Your task to perform on an android device: Go to display settings Image 0: 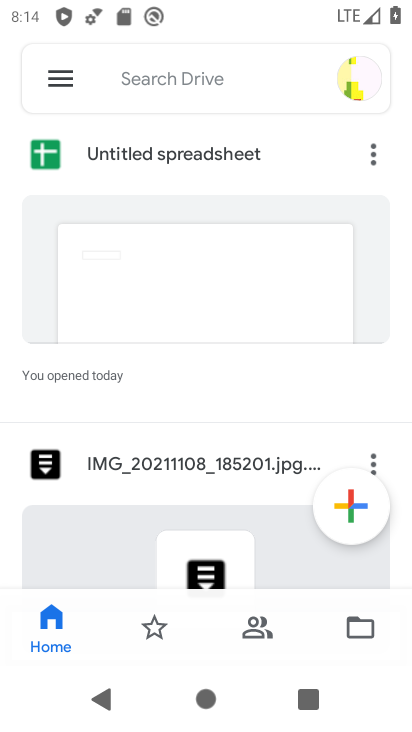
Step 0: press home button
Your task to perform on an android device: Go to display settings Image 1: 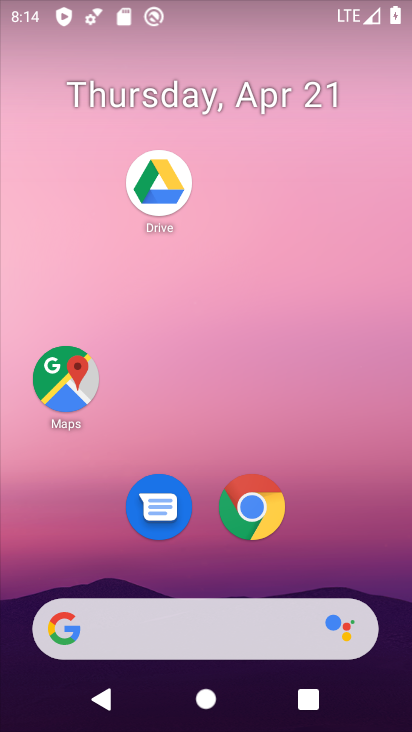
Step 1: drag from (349, 552) to (361, 216)
Your task to perform on an android device: Go to display settings Image 2: 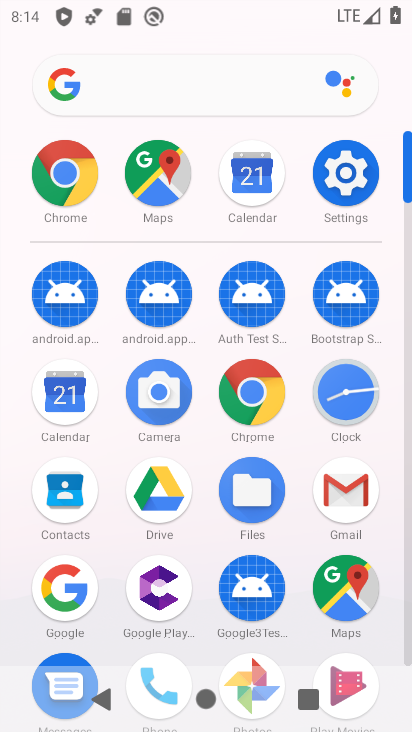
Step 2: click (352, 184)
Your task to perform on an android device: Go to display settings Image 3: 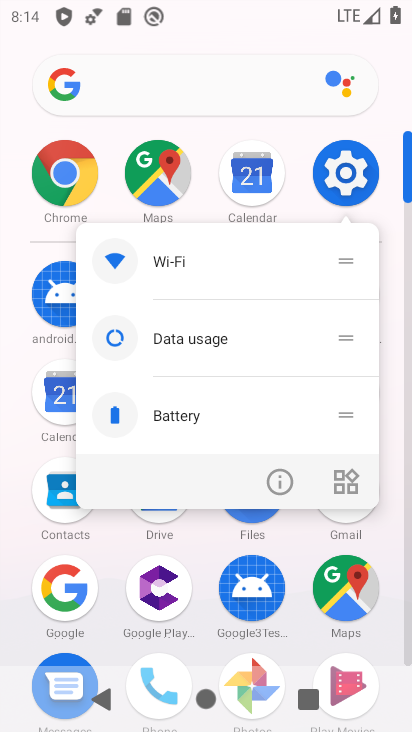
Step 3: click (366, 158)
Your task to perform on an android device: Go to display settings Image 4: 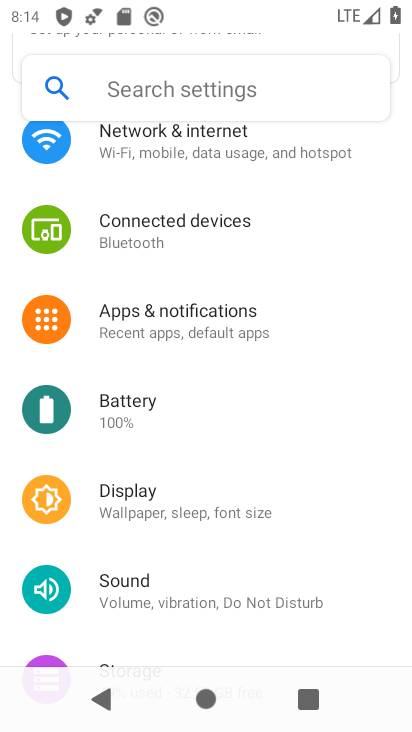
Step 4: drag from (365, 293) to (362, 456)
Your task to perform on an android device: Go to display settings Image 5: 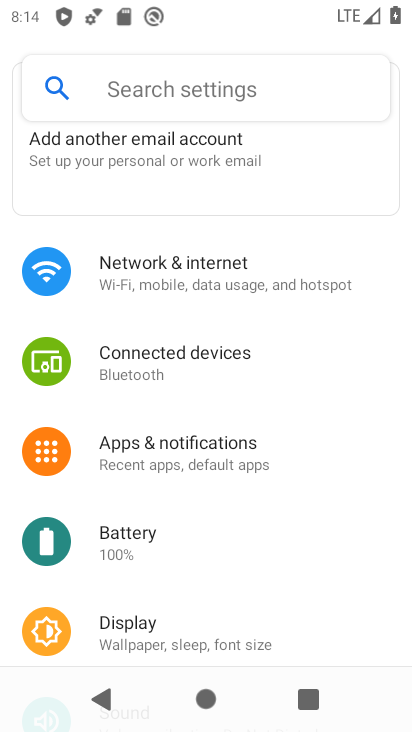
Step 5: drag from (370, 294) to (363, 508)
Your task to perform on an android device: Go to display settings Image 6: 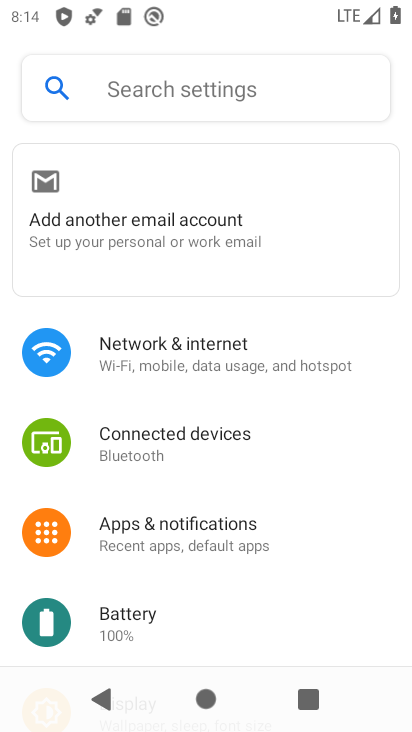
Step 6: drag from (357, 539) to (371, 398)
Your task to perform on an android device: Go to display settings Image 7: 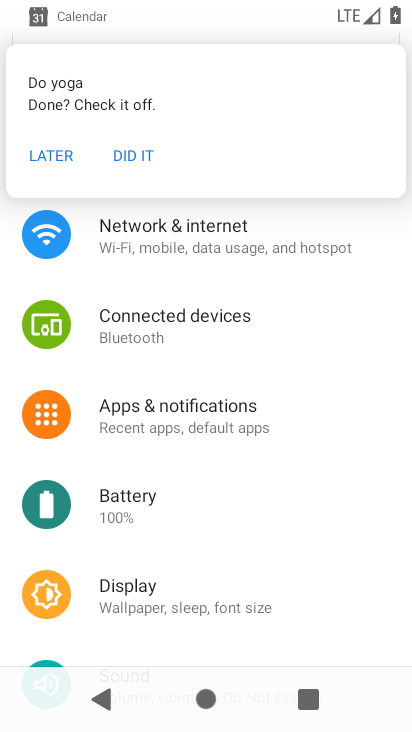
Step 7: drag from (320, 521) to (318, 315)
Your task to perform on an android device: Go to display settings Image 8: 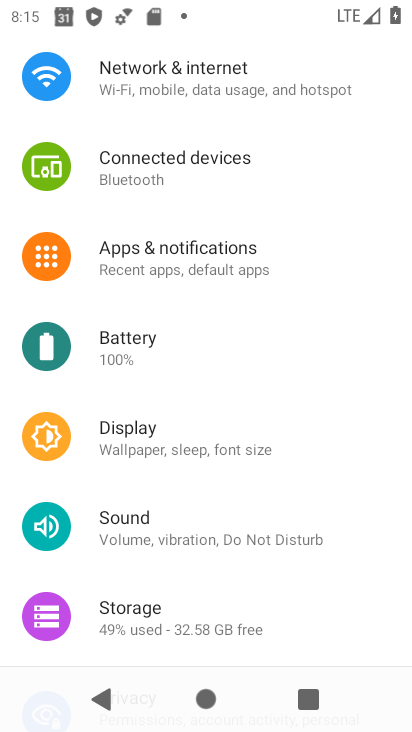
Step 8: drag from (342, 597) to (343, 425)
Your task to perform on an android device: Go to display settings Image 9: 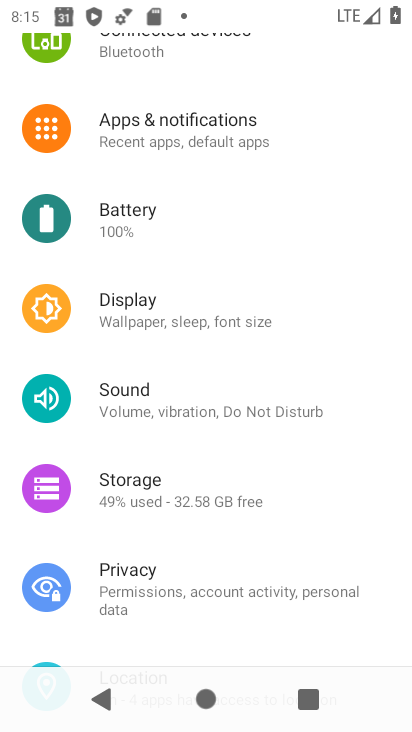
Step 9: click (225, 314)
Your task to perform on an android device: Go to display settings Image 10: 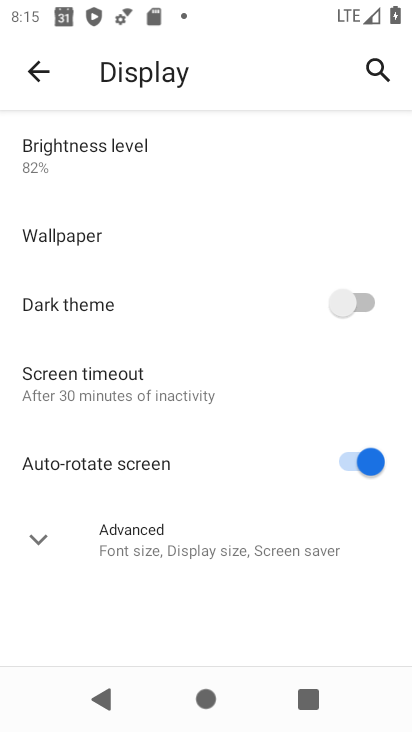
Step 10: task complete